Your task to perform on an android device: change the upload size in google photos Image 0: 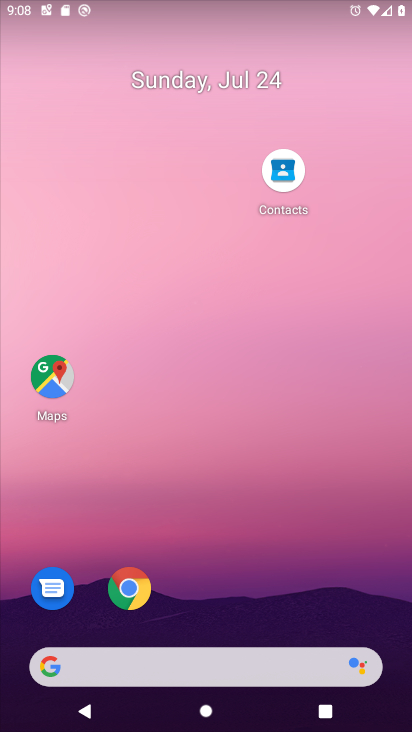
Step 0: press home button
Your task to perform on an android device: change the upload size in google photos Image 1: 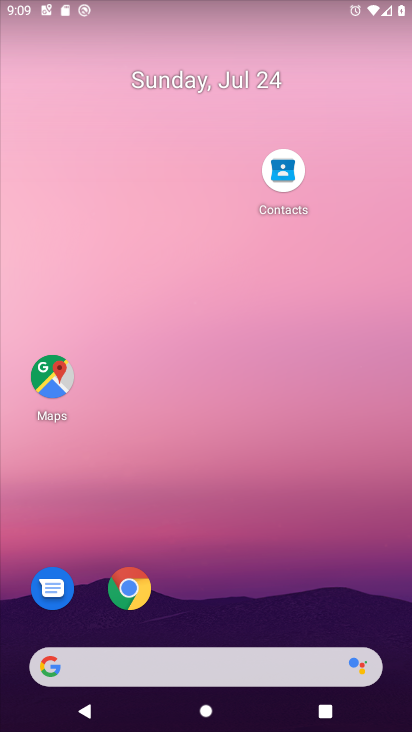
Step 1: drag from (225, 629) to (196, 98)
Your task to perform on an android device: change the upload size in google photos Image 2: 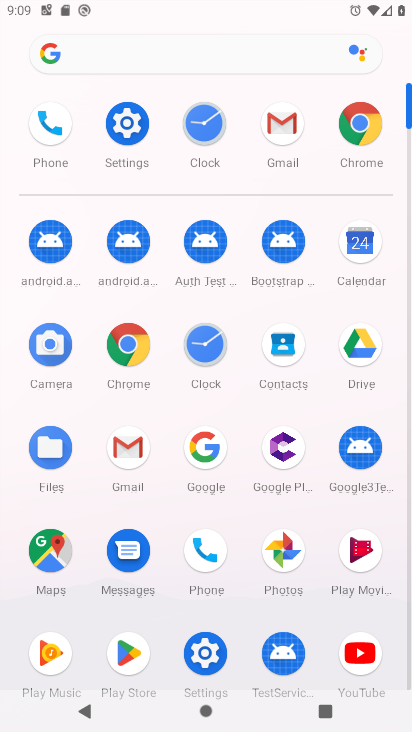
Step 2: click (281, 545)
Your task to perform on an android device: change the upload size in google photos Image 3: 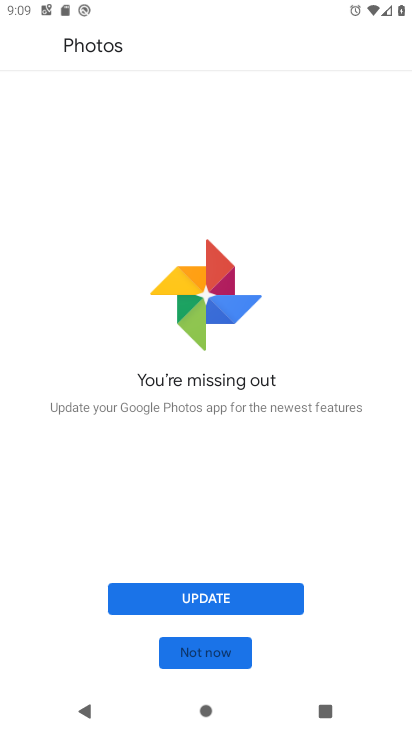
Step 3: click (207, 589)
Your task to perform on an android device: change the upload size in google photos Image 4: 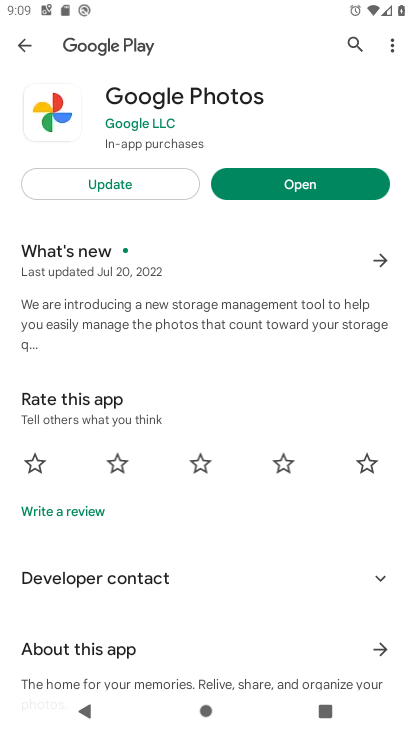
Step 4: click (106, 184)
Your task to perform on an android device: change the upload size in google photos Image 5: 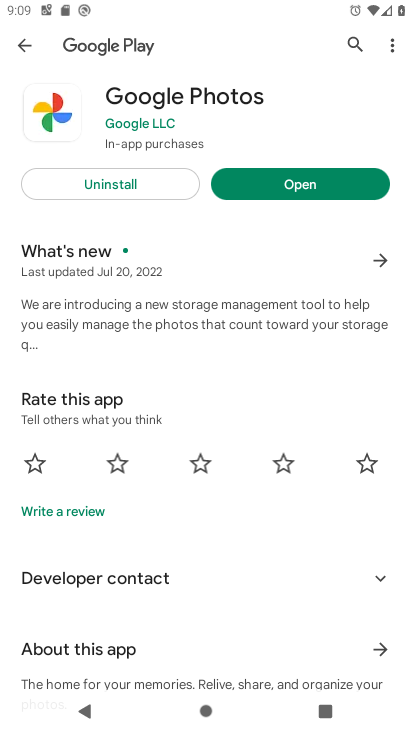
Step 5: click (295, 182)
Your task to perform on an android device: change the upload size in google photos Image 6: 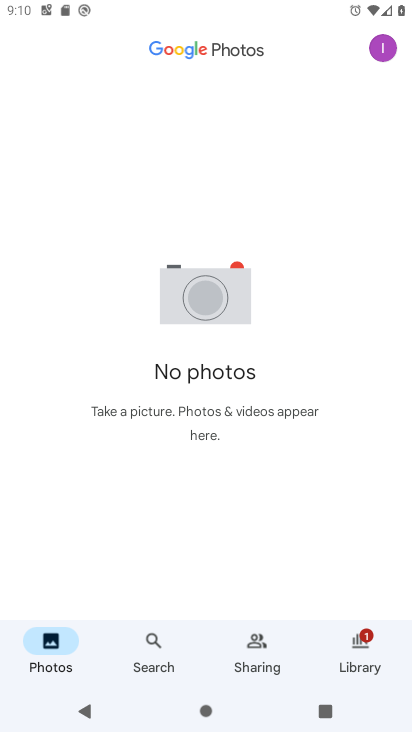
Step 6: click (388, 47)
Your task to perform on an android device: change the upload size in google photos Image 7: 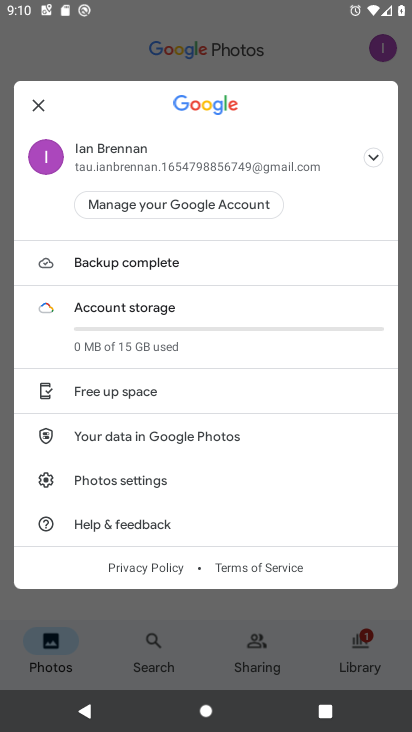
Step 7: click (135, 263)
Your task to perform on an android device: change the upload size in google photos Image 8: 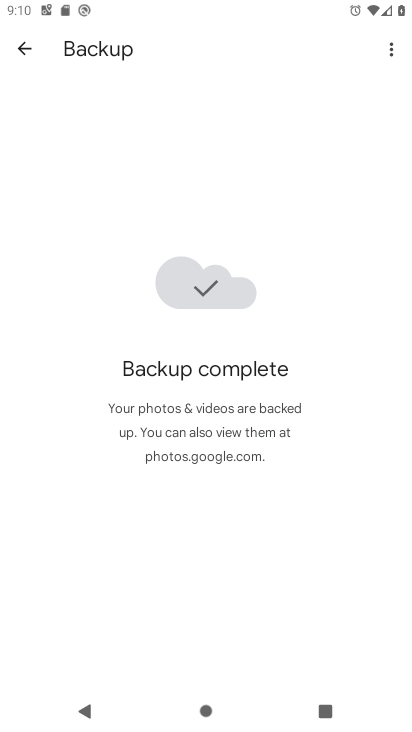
Step 8: click (389, 49)
Your task to perform on an android device: change the upload size in google photos Image 9: 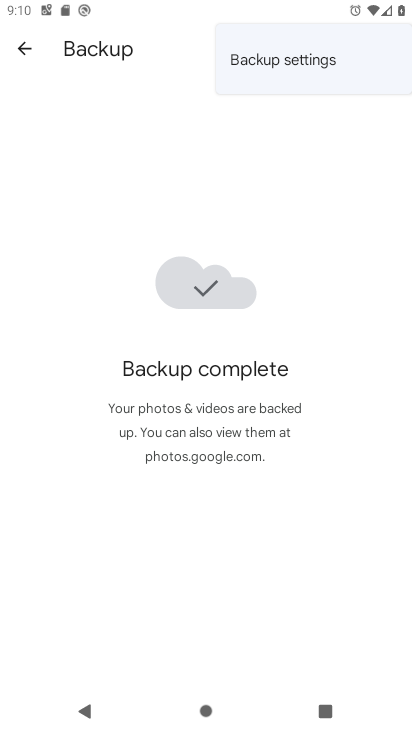
Step 9: click (307, 69)
Your task to perform on an android device: change the upload size in google photos Image 10: 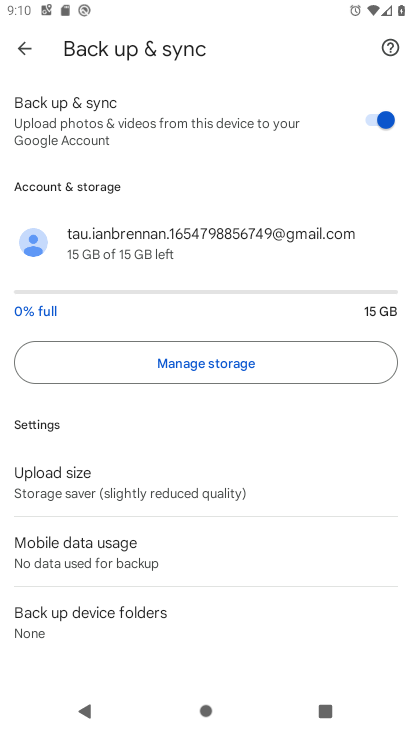
Step 10: click (111, 483)
Your task to perform on an android device: change the upload size in google photos Image 11: 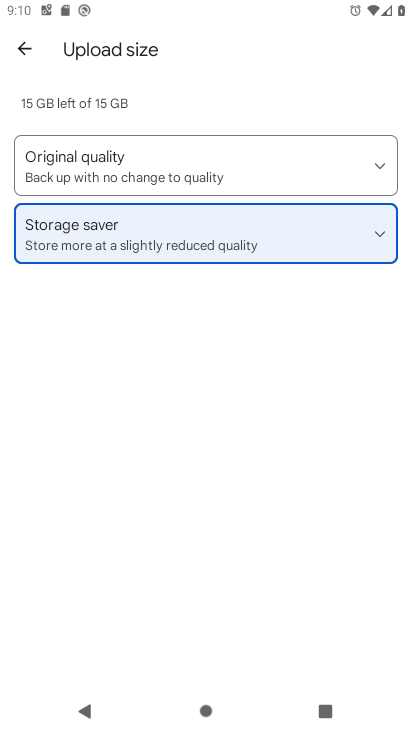
Step 11: click (245, 168)
Your task to perform on an android device: change the upload size in google photos Image 12: 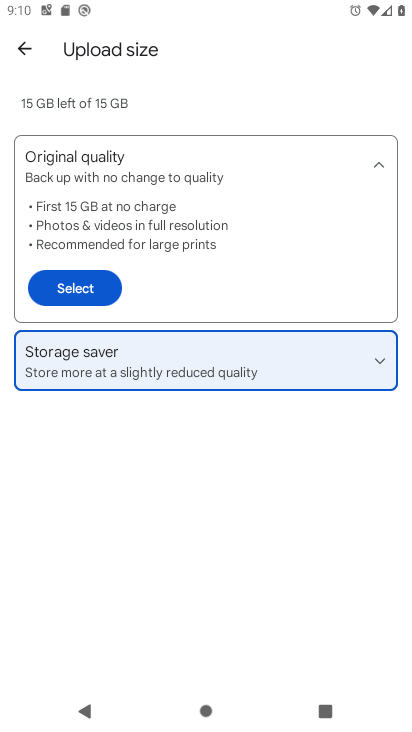
Step 12: click (73, 286)
Your task to perform on an android device: change the upload size in google photos Image 13: 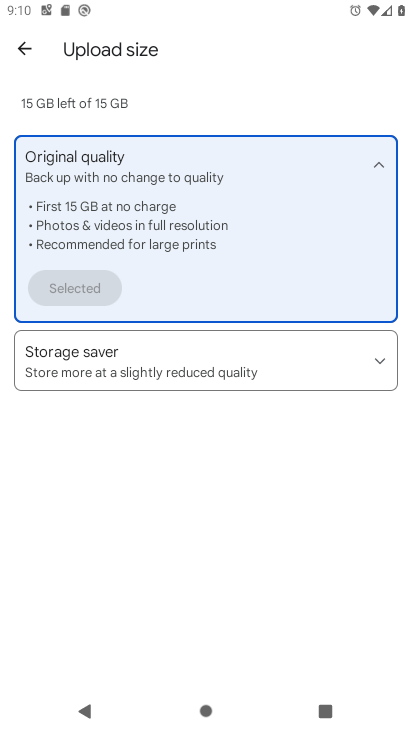
Step 13: task complete